Your task to perform on an android device: Check the news Image 0: 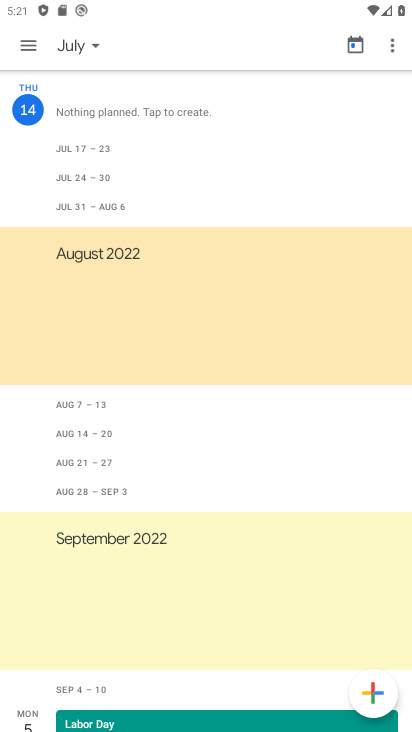
Step 0: press home button
Your task to perform on an android device: Check the news Image 1: 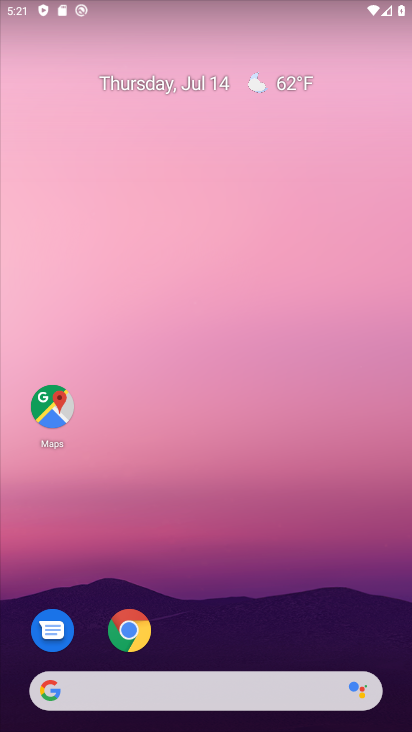
Step 1: click (96, 676)
Your task to perform on an android device: Check the news Image 2: 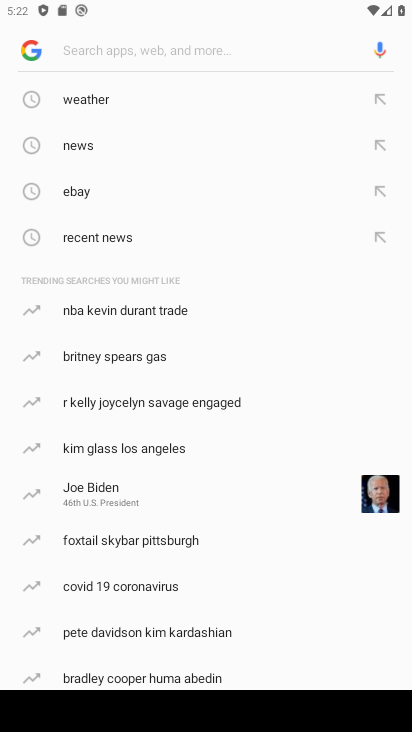
Step 2: click (25, 57)
Your task to perform on an android device: Check the news Image 3: 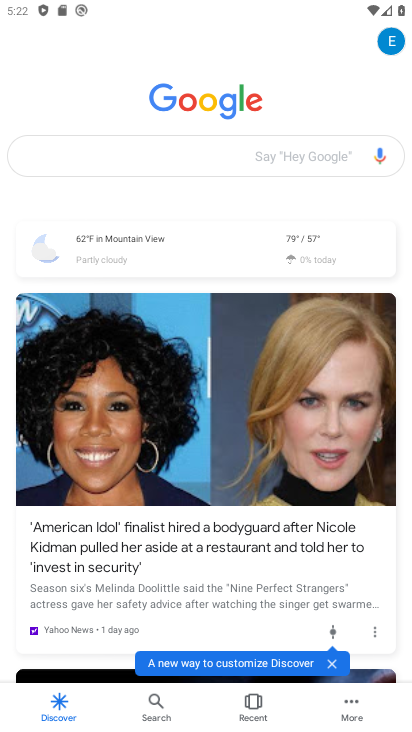
Step 3: task complete